Your task to perform on an android device: remove spam from my inbox in the gmail app Image 0: 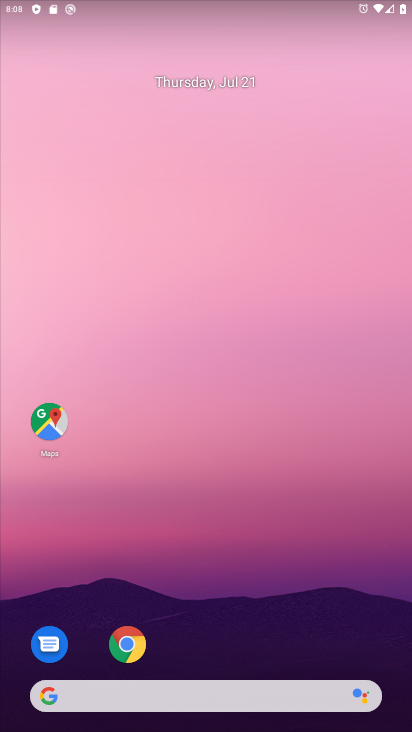
Step 0: drag from (333, 579) to (339, 117)
Your task to perform on an android device: remove spam from my inbox in the gmail app Image 1: 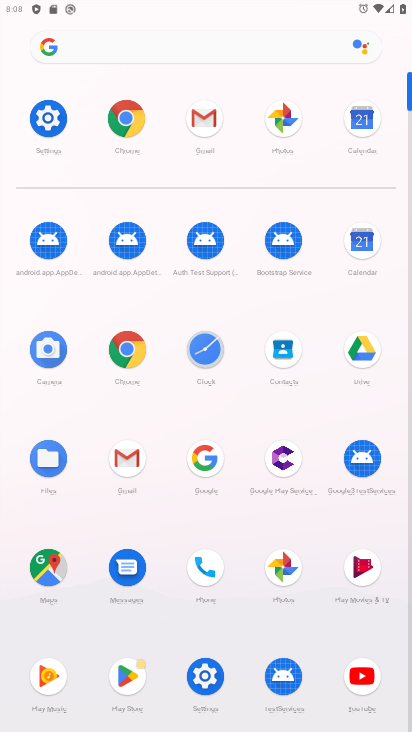
Step 1: click (129, 458)
Your task to perform on an android device: remove spam from my inbox in the gmail app Image 2: 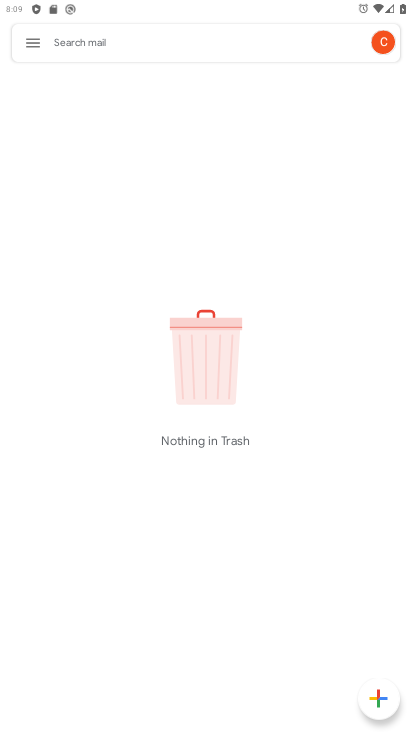
Step 2: click (30, 43)
Your task to perform on an android device: remove spam from my inbox in the gmail app Image 3: 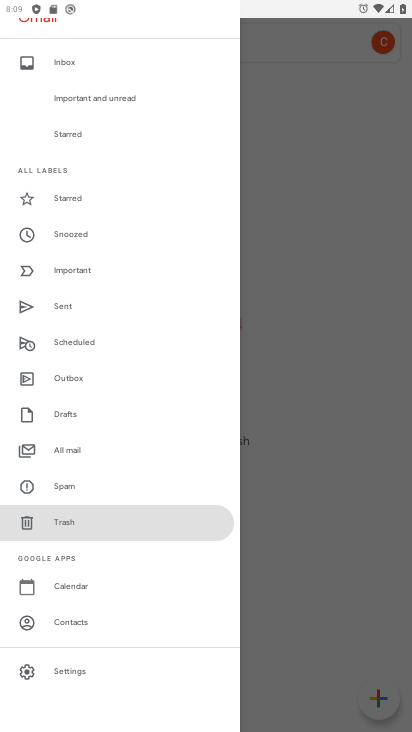
Step 3: drag from (156, 345) to (166, 257)
Your task to perform on an android device: remove spam from my inbox in the gmail app Image 4: 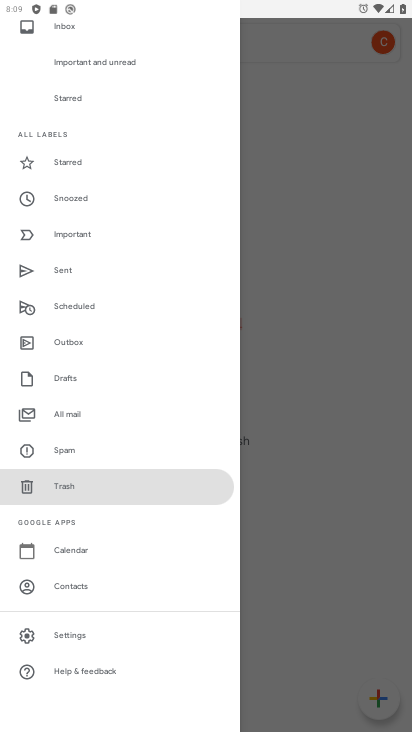
Step 4: click (81, 452)
Your task to perform on an android device: remove spam from my inbox in the gmail app Image 5: 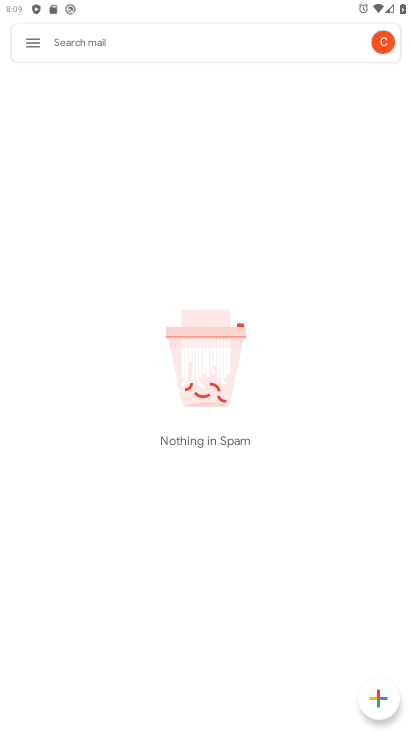
Step 5: task complete